Your task to perform on an android device: check android version Image 0: 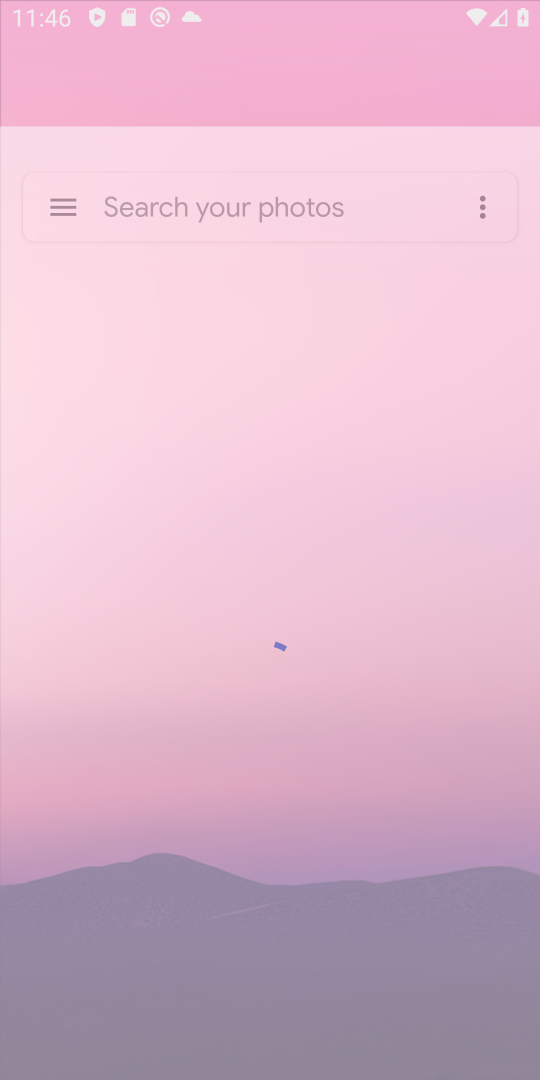
Step 0: press home button
Your task to perform on an android device: check android version Image 1: 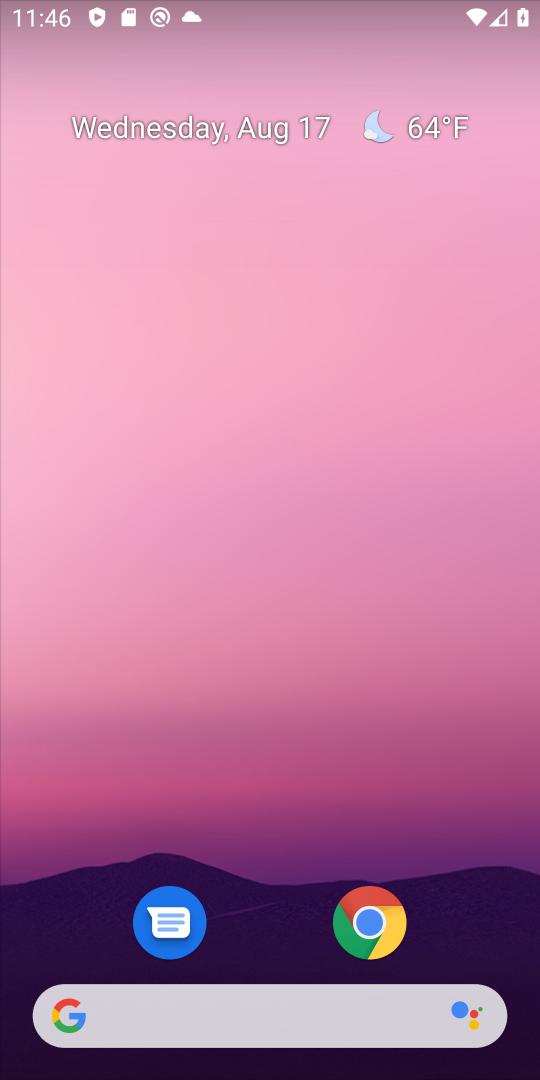
Step 1: drag from (282, 880) to (333, 241)
Your task to perform on an android device: check android version Image 2: 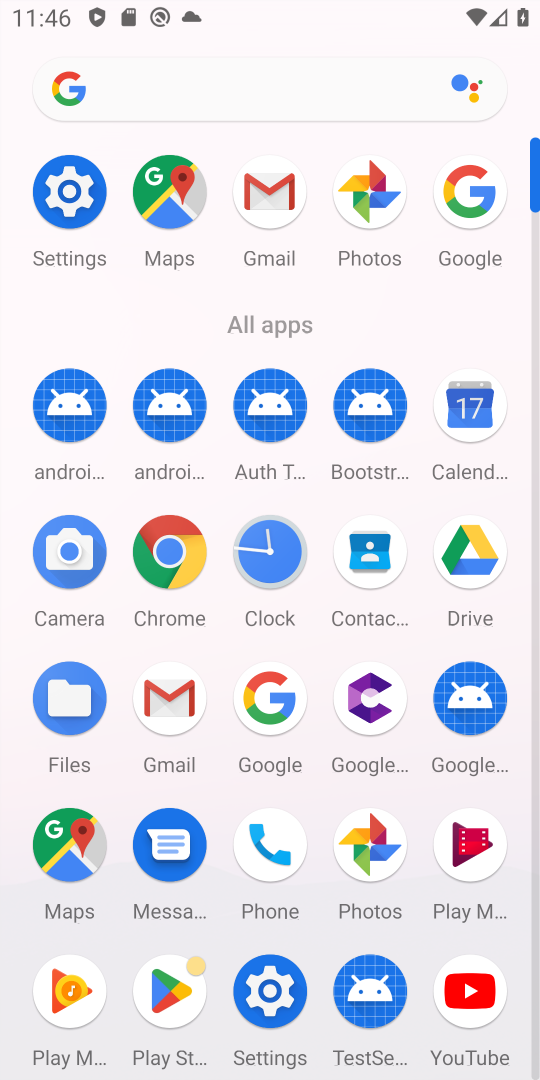
Step 2: click (70, 192)
Your task to perform on an android device: check android version Image 3: 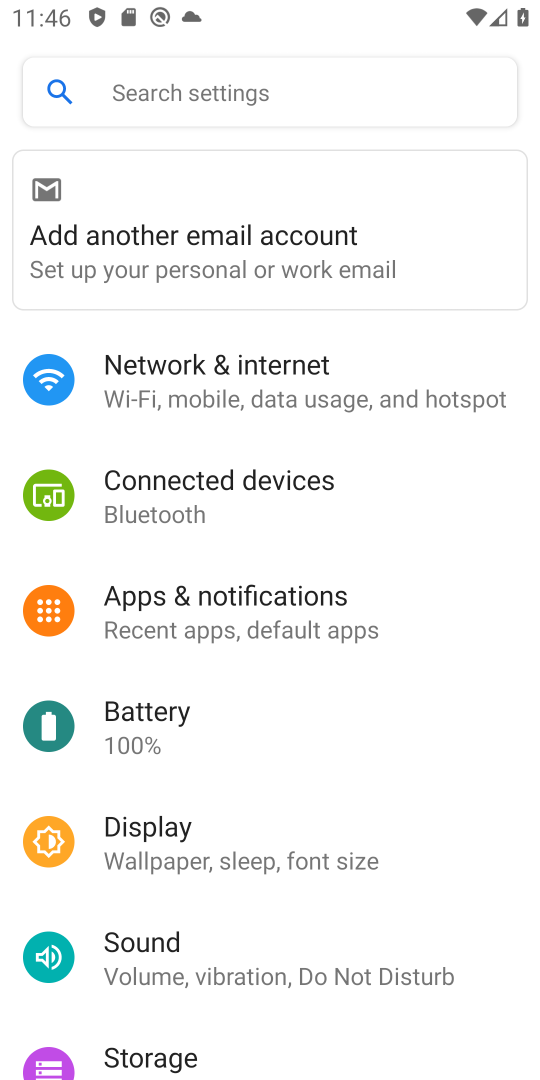
Step 3: drag from (245, 1006) to (331, 423)
Your task to perform on an android device: check android version Image 4: 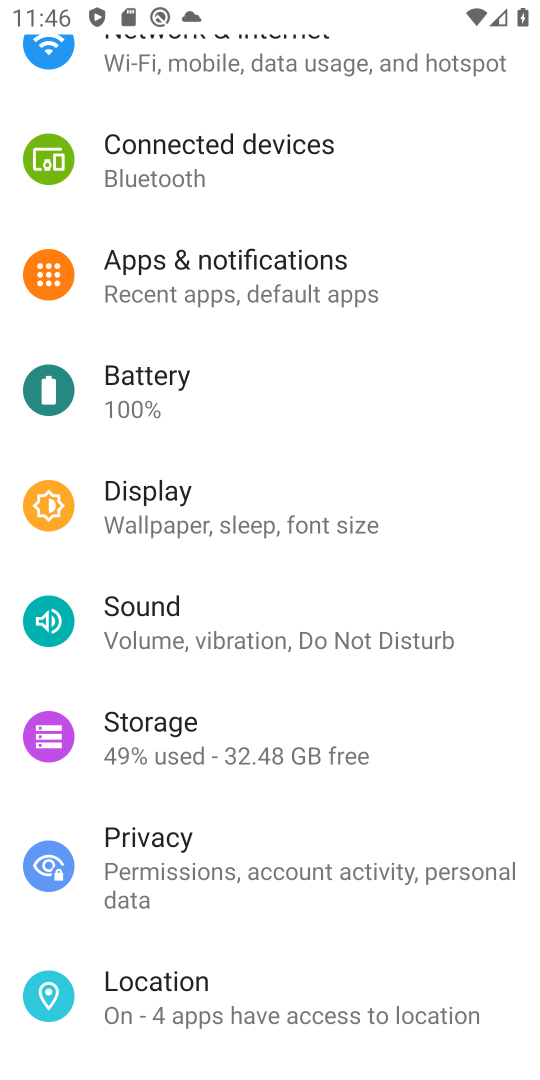
Step 4: drag from (224, 923) to (301, 209)
Your task to perform on an android device: check android version Image 5: 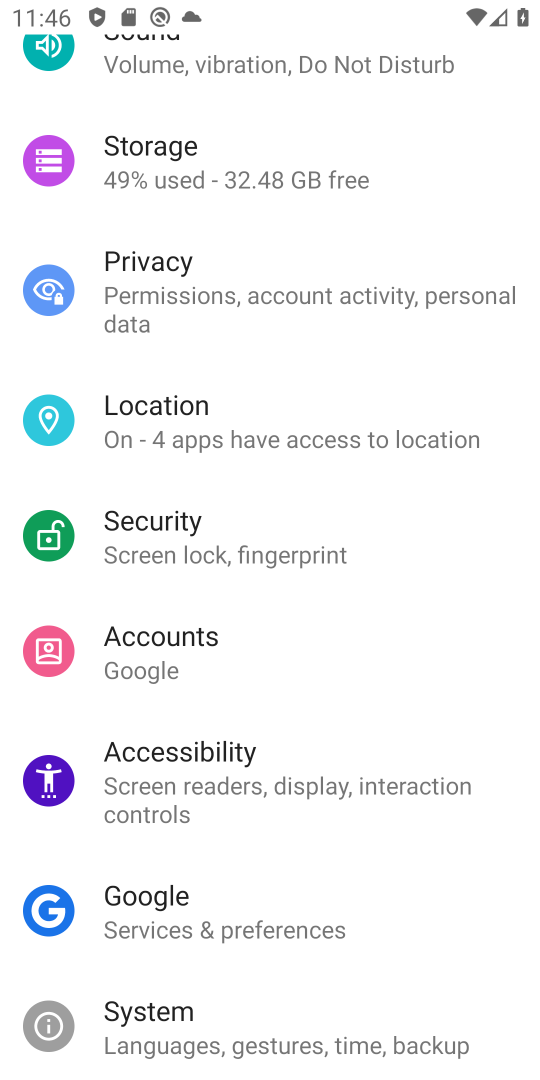
Step 5: drag from (219, 986) to (223, 396)
Your task to perform on an android device: check android version Image 6: 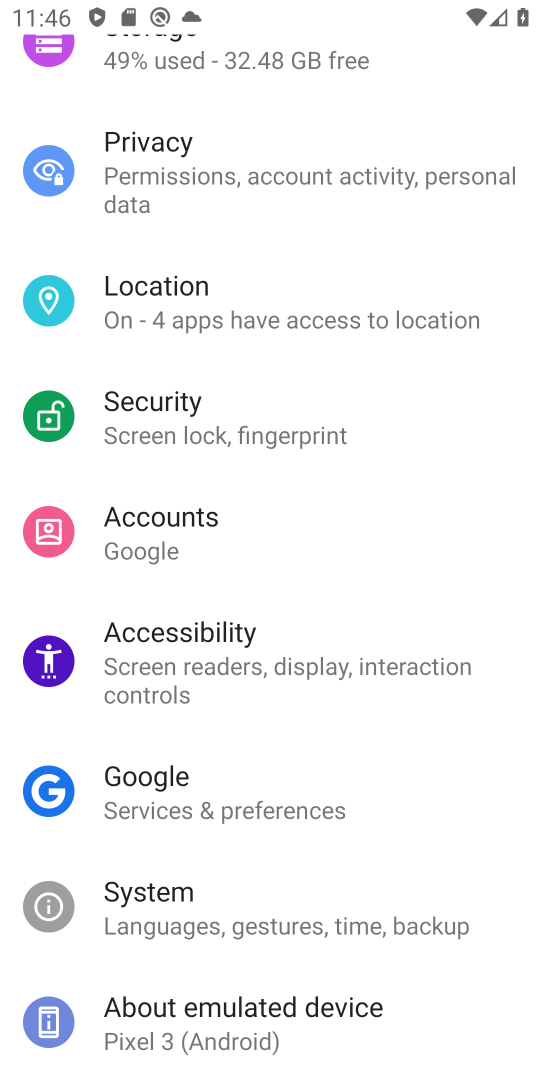
Step 6: click (192, 1007)
Your task to perform on an android device: check android version Image 7: 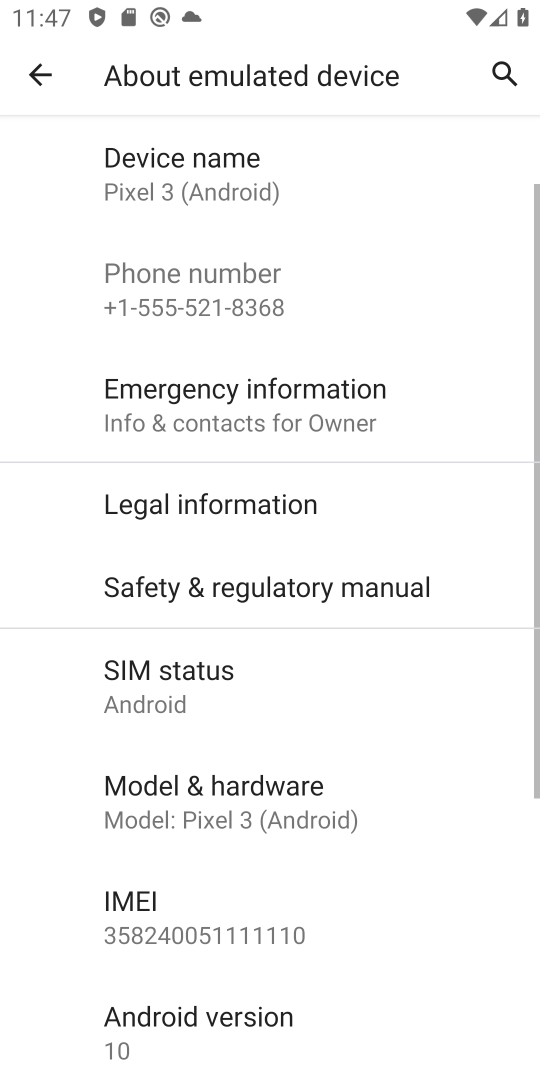
Step 7: task complete